Your task to perform on an android device: all mails in gmail Image 0: 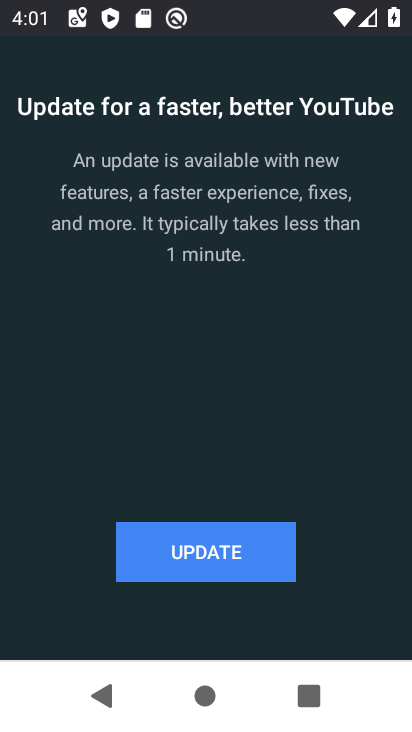
Step 0: press home button
Your task to perform on an android device: all mails in gmail Image 1: 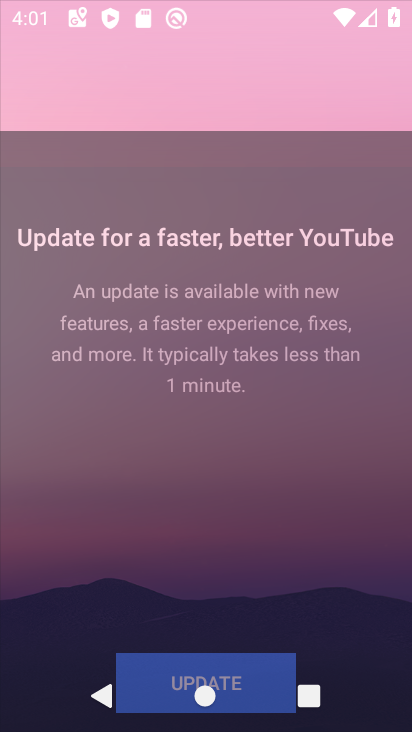
Step 1: drag from (252, 570) to (252, 72)
Your task to perform on an android device: all mails in gmail Image 2: 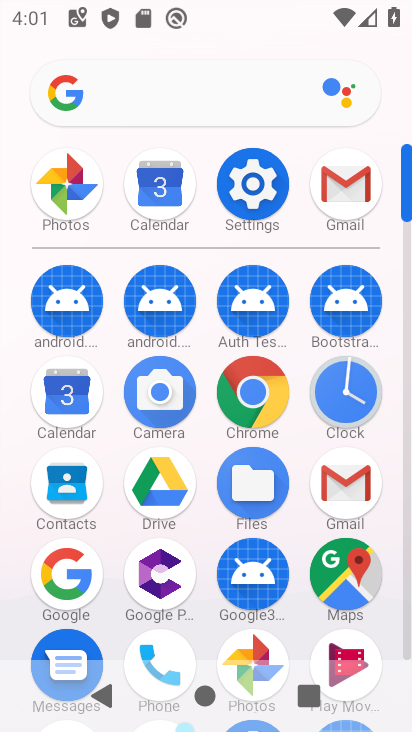
Step 2: click (337, 492)
Your task to perform on an android device: all mails in gmail Image 3: 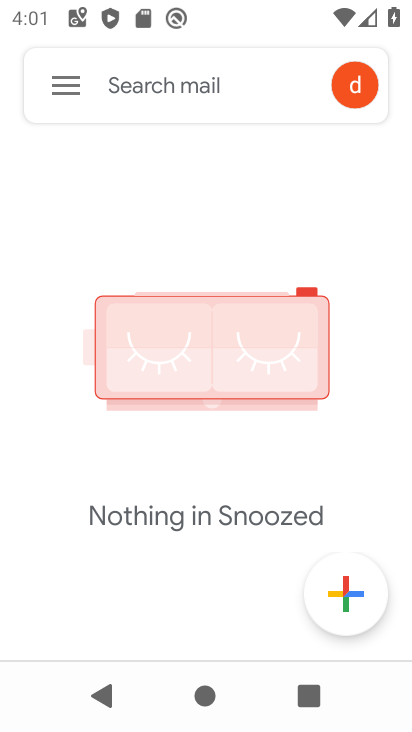
Step 3: click (72, 92)
Your task to perform on an android device: all mails in gmail Image 4: 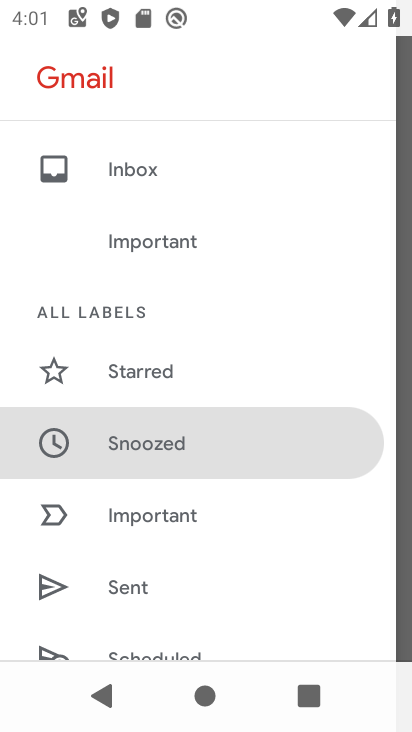
Step 4: drag from (176, 519) to (265, 94)
Your task to perform on an android device: all mails in gmail Image 5: 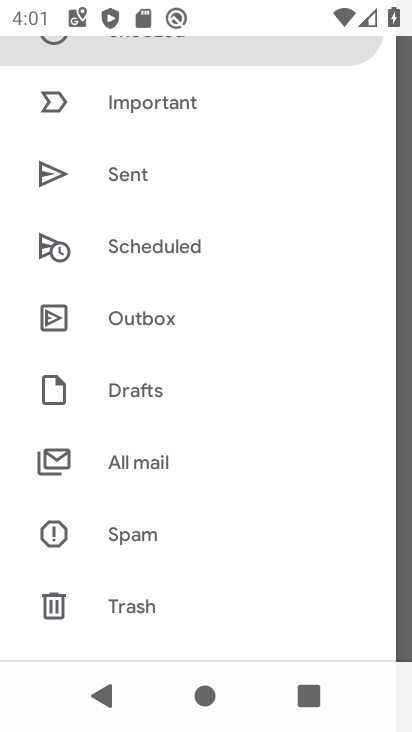
Step 5: click (150, 466)
Your task to perform on an android device: all mails in gmail Image 6: 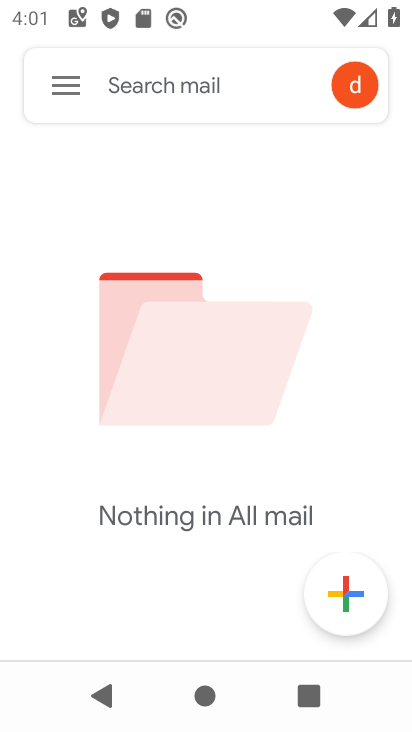
Step 6: drag from (133, 529) to (206, 225)
Your task to perform on an android device: all mails in gmail Image 7: 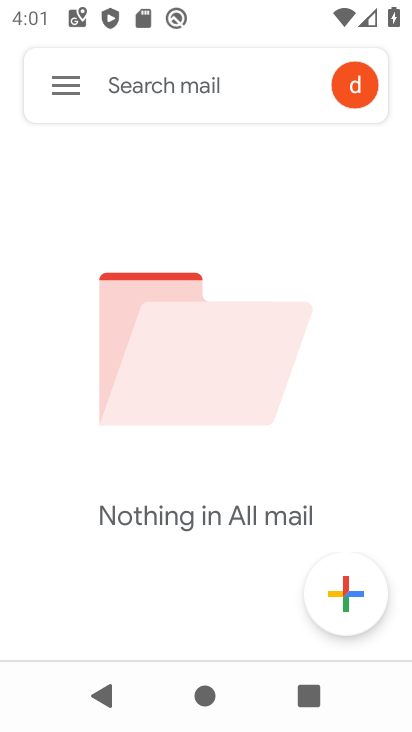
Step 7: drag from (154, 571) to (206, 264)
Your task to perform on an android device: all mails in gmail Image 8: 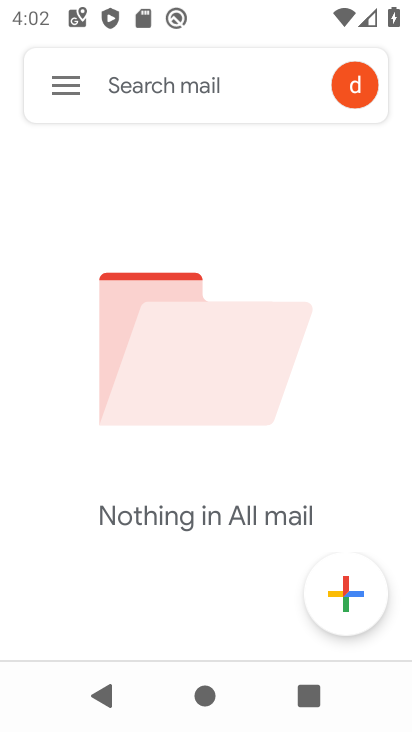
Step 8: drag from (255, 545) to (249, 232)
Your task to perform on an android device: all mails in gmail Image 9: 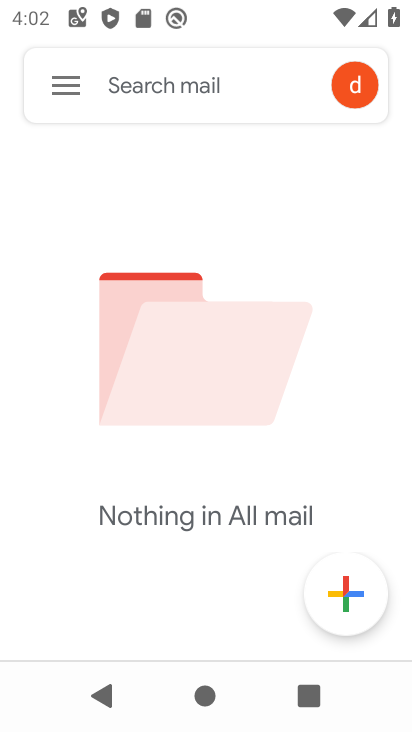
Step 9: click (55, 85)
Your task to perform on an android device: all mails in gmail Image 10: 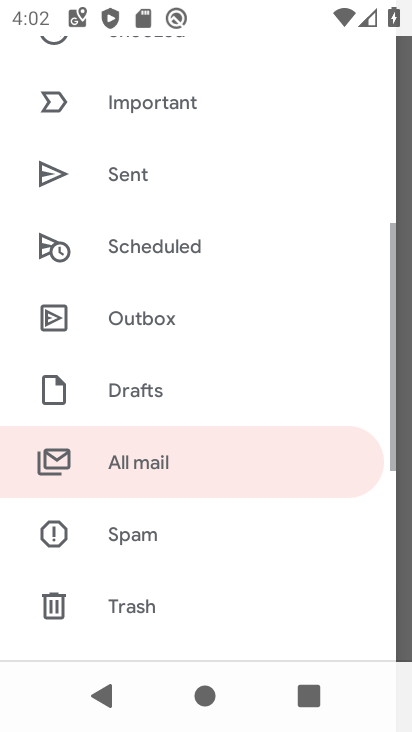
Step 10: click (170, 461)
Your task to perform on an android device: all mails in gmail Image 11: 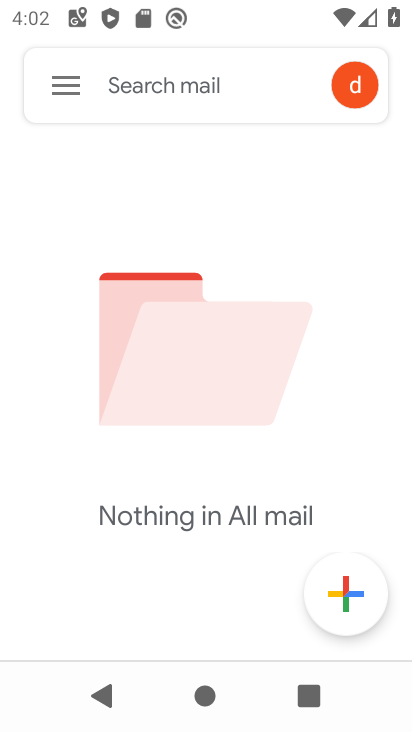
Step 11: task complete